Your task to perform on an android device: check battery use Image 0: 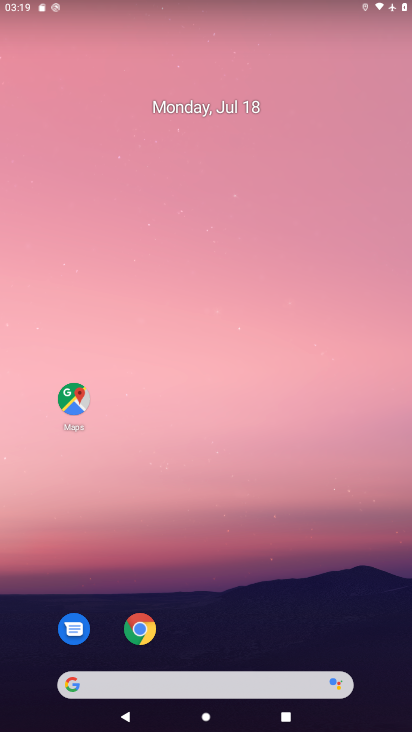
Step 0: drag from (320, 584) to (323, 167)
Your task to perform on an android device: check battery use Image 1: 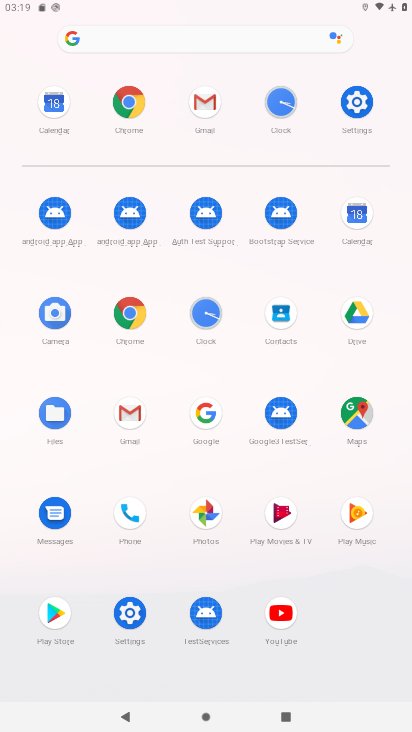
Step 1: click (342, 107)
Your task to perform on an android device: check battery use Image 2: 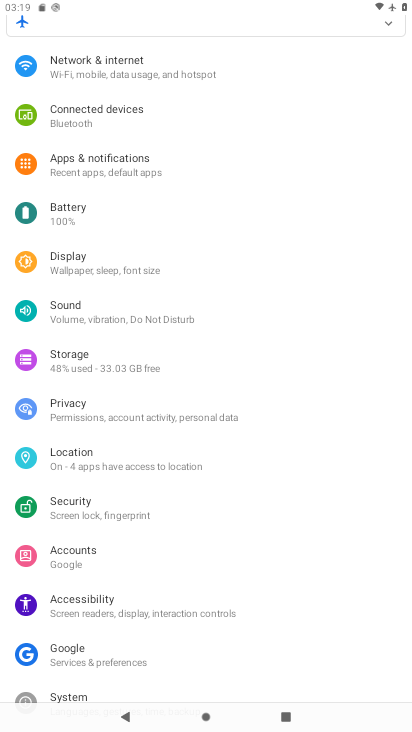
Step 2: drag from (293, 237) to (308, 348)
Your task to perform on an android device: check battery use Image 3: 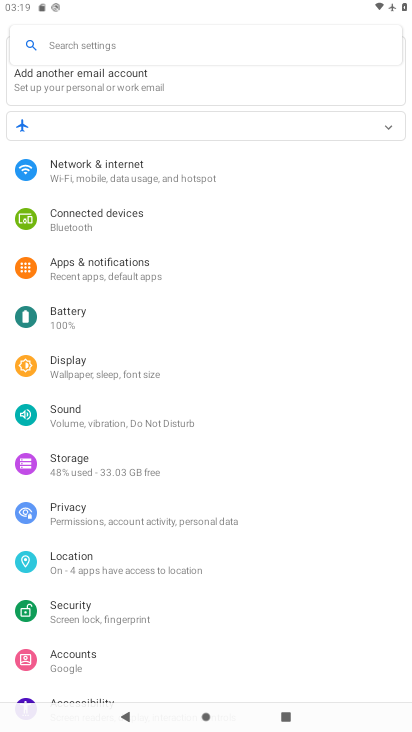
Step 3: drag from (299, 465) to (316, 350)
Your task to perform on an android device: check battery use Image 4: 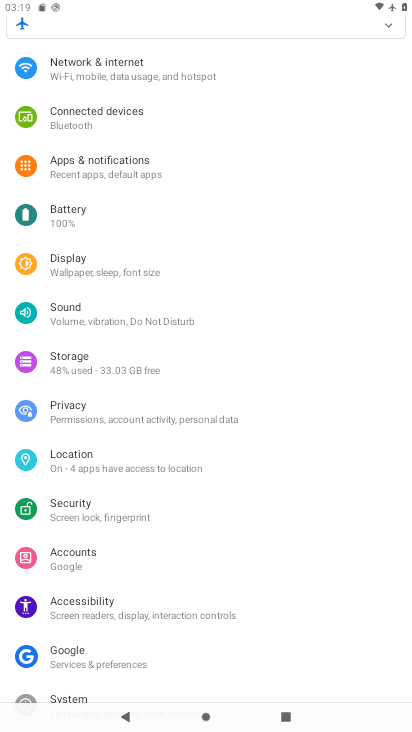
Step 4: drag from (297, 516) to (311, 405)
Your task to perform on an android device: check battery use Image 5: 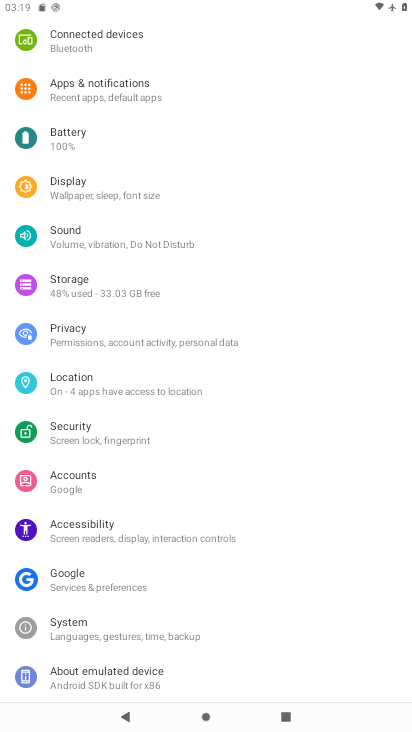
Step 5: drag from (315, 513) to (329, 428)
Your task to perform on an android device: check battery use Image 6: 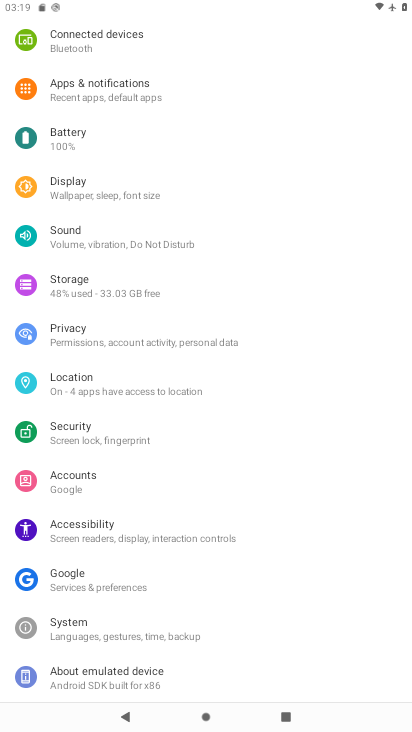
Step 6: drag from (338, 260) to (339, 352)
Your task to perform on an android device: check battery use Image 7: 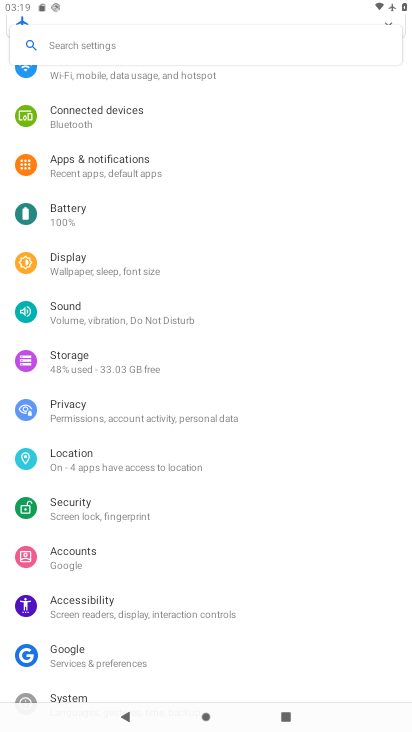
Step 7: drag from (325, 218) to (307, 418)
Your task to perform on an android device: check battery use Image 8: 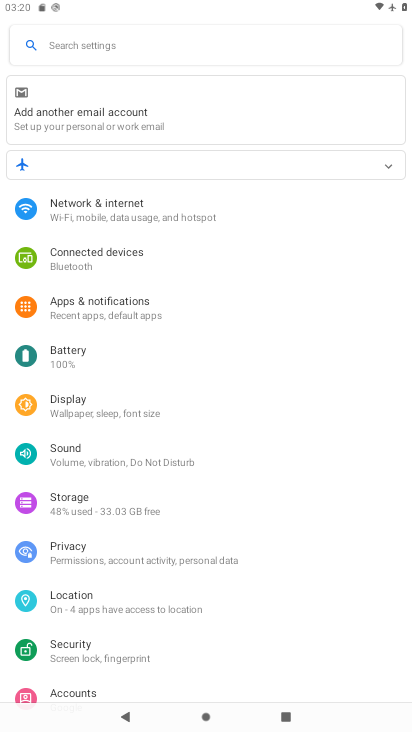
Step 8: click (111, 369)
Your task to perform on an android device: check battery use Image 9: 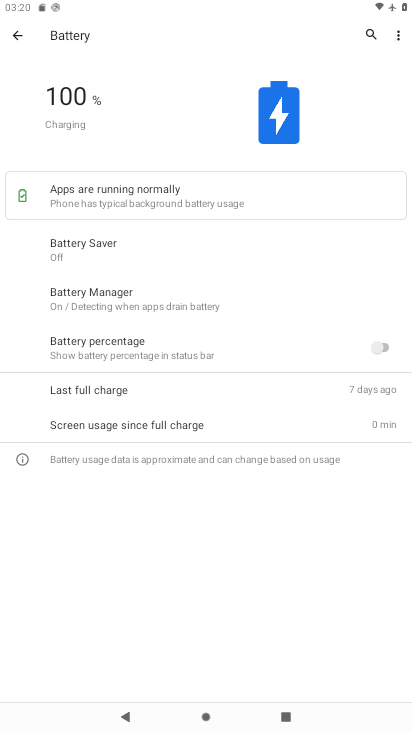
Step 9: click (396, 39)
Your task to perform on an android device: check battery use Image 10: 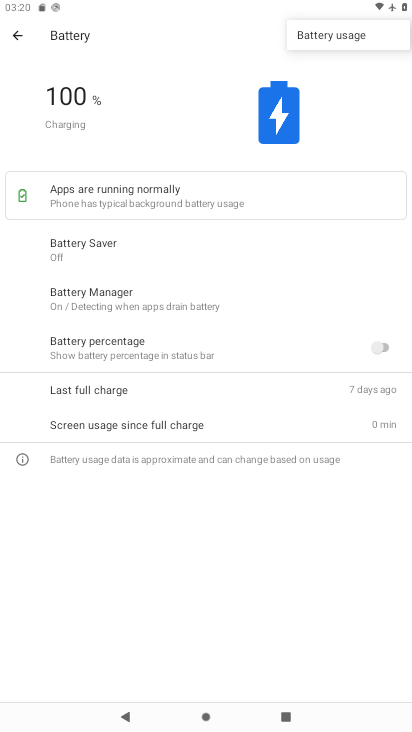
Step 10: click (342, 36)
Your task to perform on an android device: check battery use Image 11: 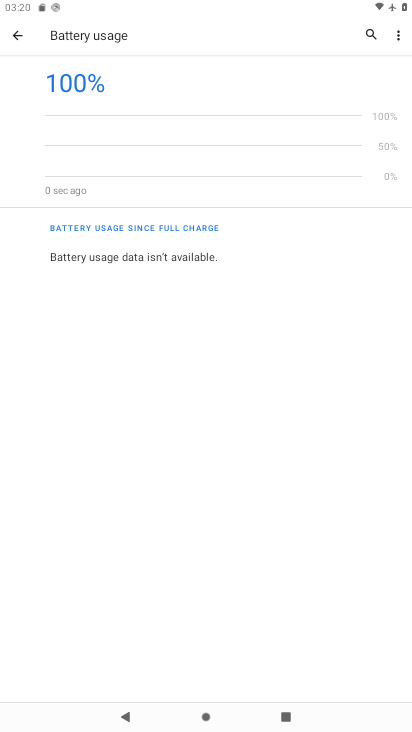
Step 11: task complete